Your task to perform on an android device: Open privacy settings Image 0: 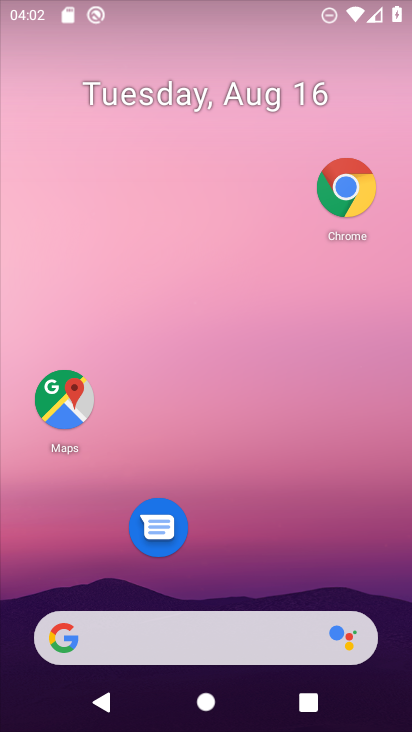
Step 0: click (222, 20)
Your task to perform on an android device: Open privacy settings Image 1: 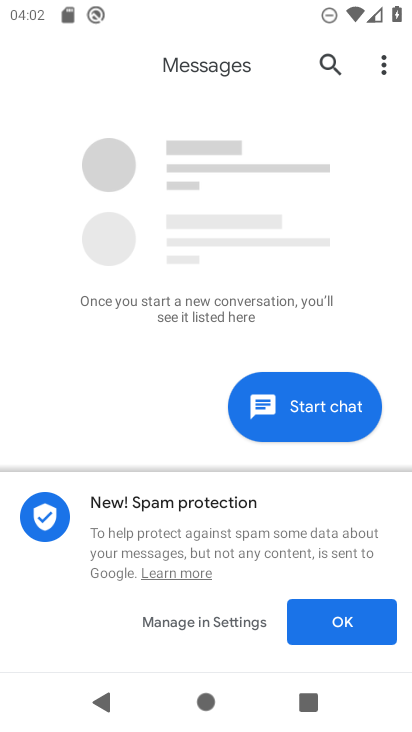
Step 1: press home button
Your task to perform on an android device: Open privacy settings Image 2: 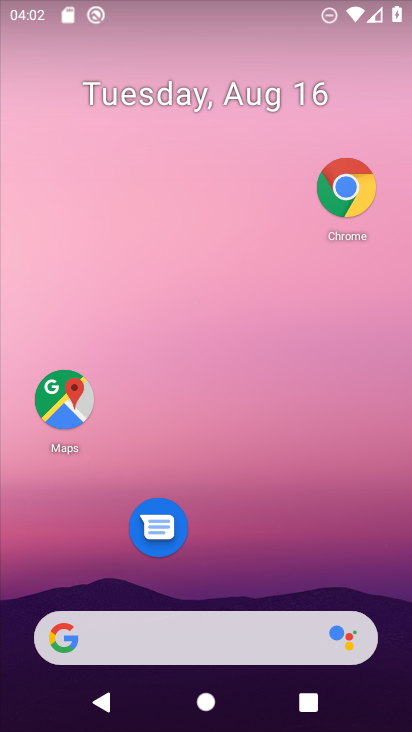
Step 2: drag from (225, 583) to (275, 54)
Your task to perform on an android device: Open privacy settings Image 3: 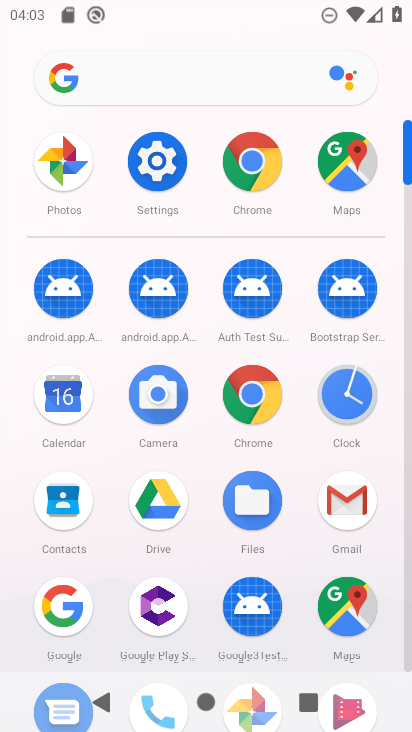
Step 3: click (154, 157)
Your task to perform on an android device: Open privacy settings Image 4: 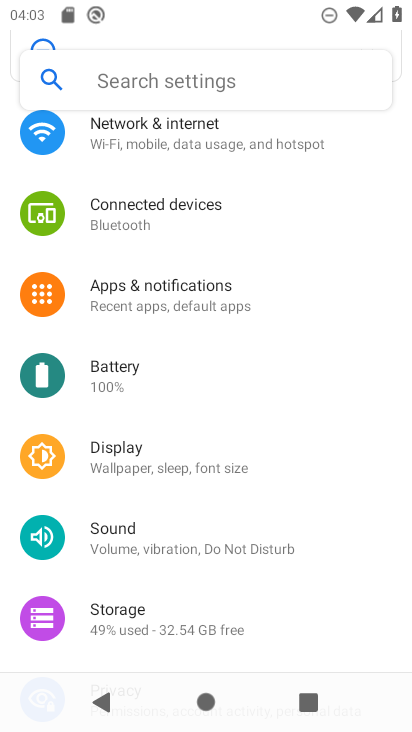
Step 4: drag from (162, 166) to (120, 610)
Your task to perform on an android device: Open privacy settings Image 5: 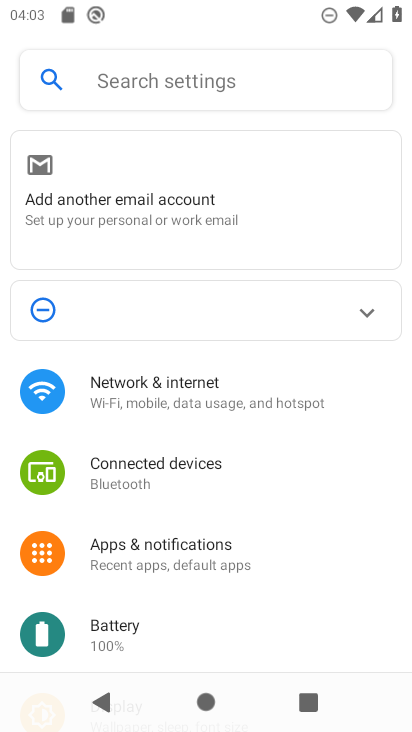
Step 5: drag from (194, 634) to (226, 211)
Your task to perform on an android device: Open privacy settings Image 6: 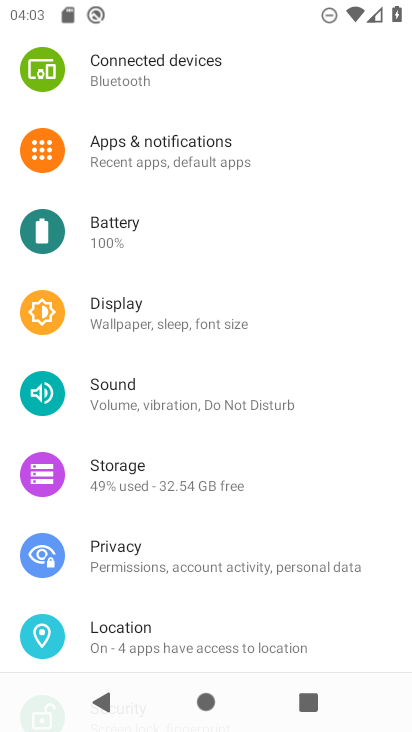
Step 6: click (159, 545)
Your task to perform on an android device: Open privacy settings Image 7: 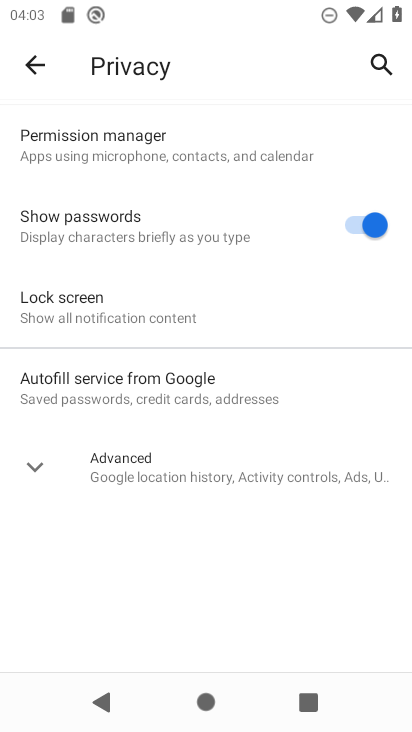
Step 7: click (34, 464)
Your task to perform on an android device: Open privacy settings Image 8: 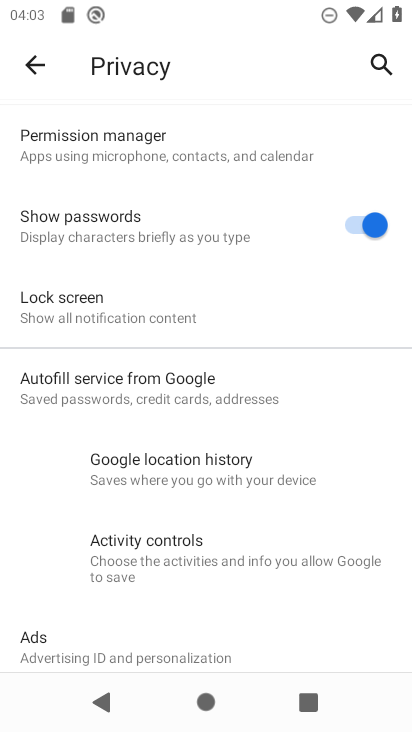
Step 8: task complete